Your task to perform on an android device: Check the news Image 0: 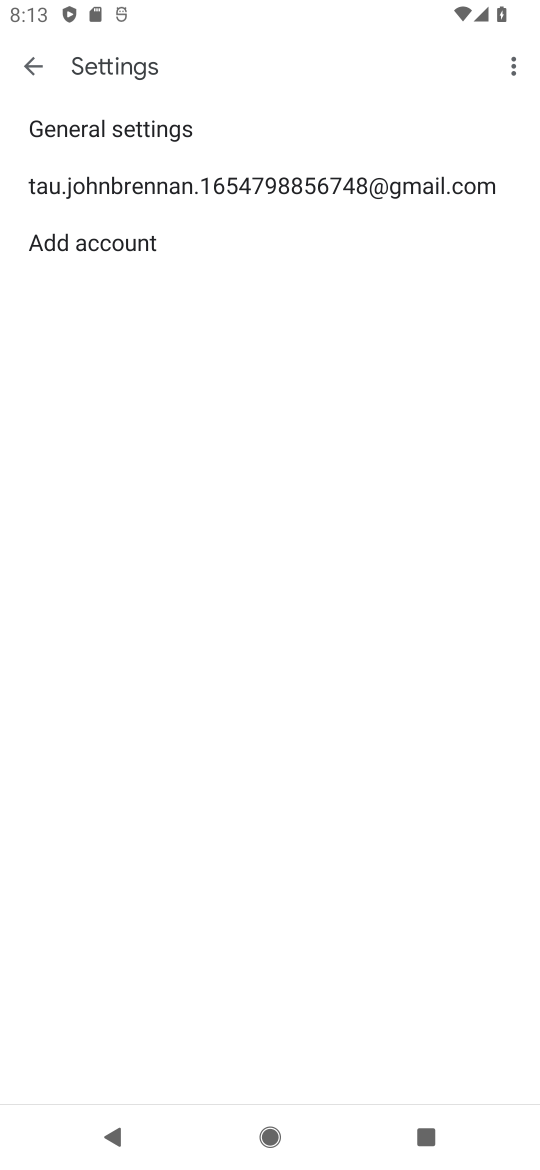
Step 0: press home button
Your task to perform on an android device: Check the news Image 1: 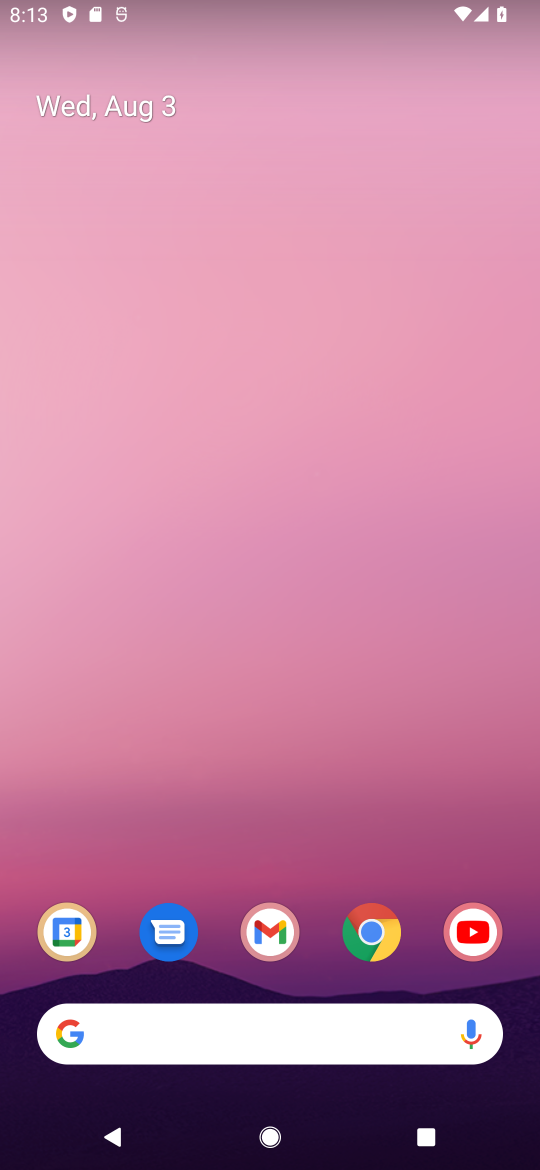
Step 1: drag from (299, 1002) to (227, 132)
Your task to perform on an android device: Check the news Image 2: 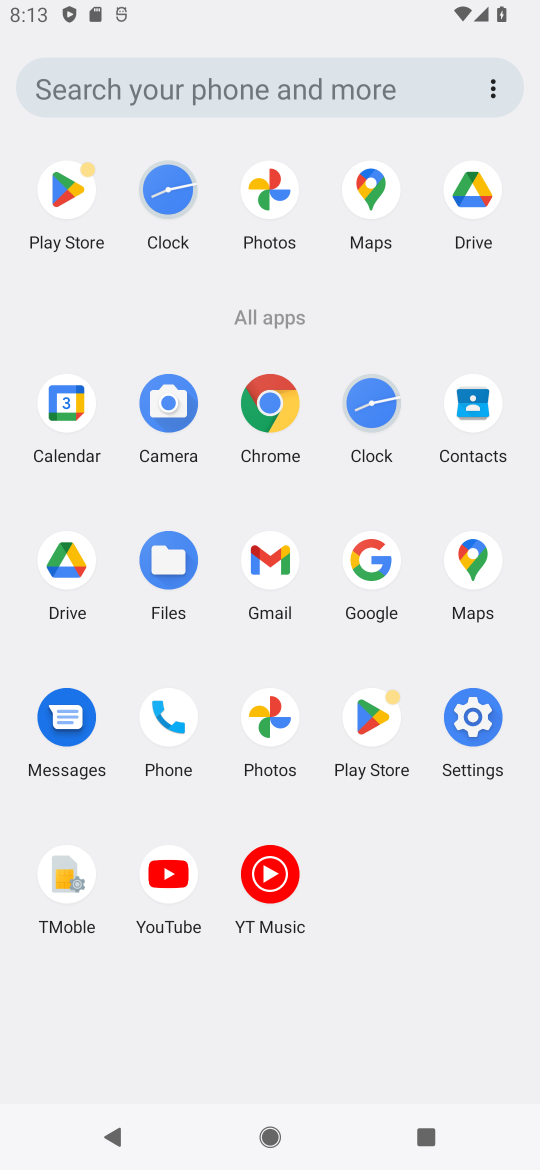
Step 2: click (358, 563)
Your task to perform on an android device: Check the news Image 3: 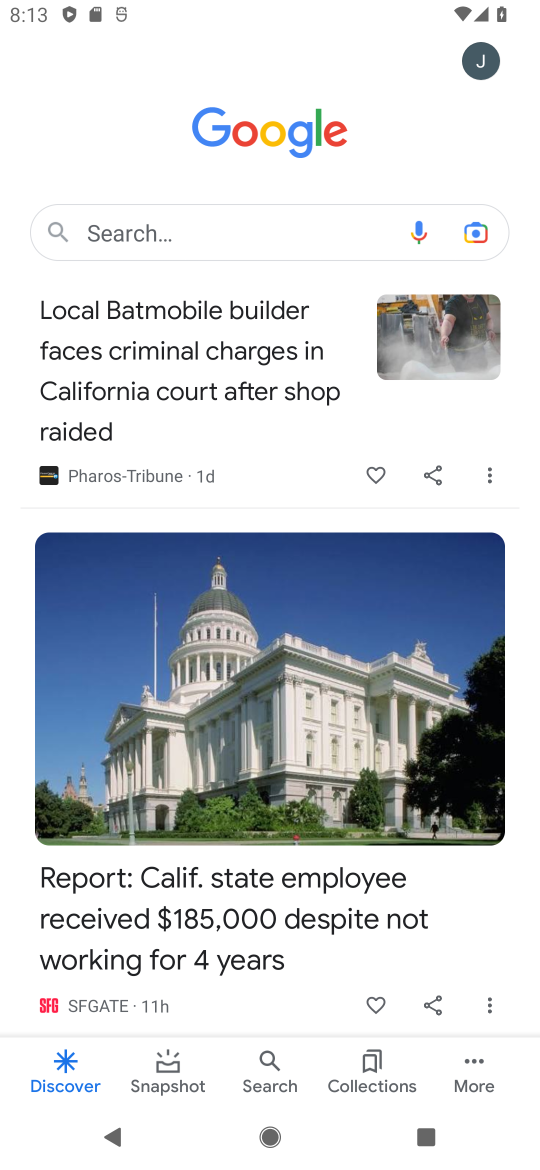
Step 3: click (196, 237)
Your task to perform on an android device: Check the news Image 4: 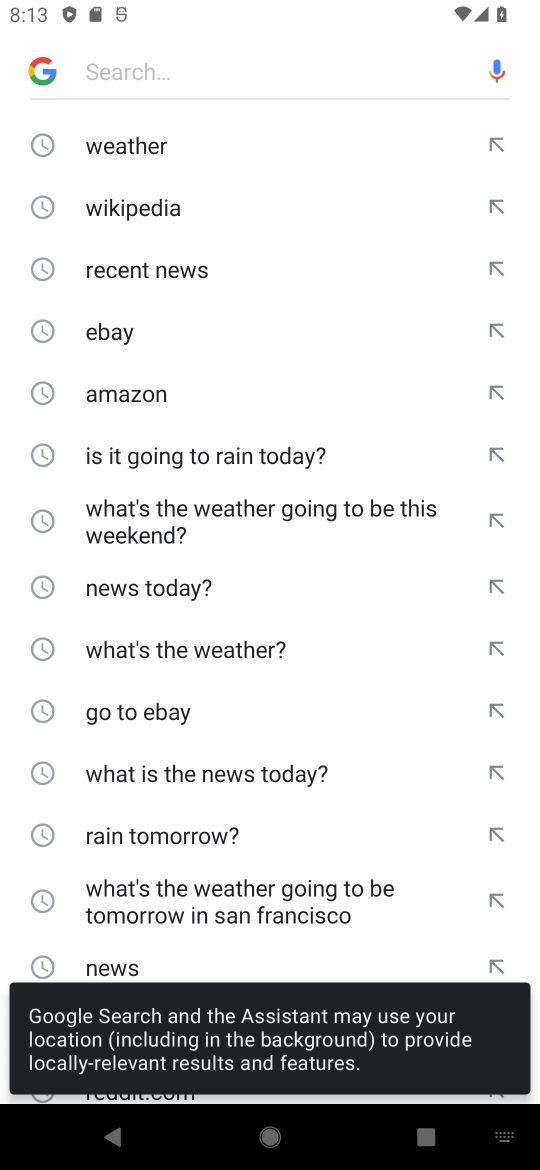
Step 4: click (153, 591)
Your task to perform on an android device: Check the news Image 5: 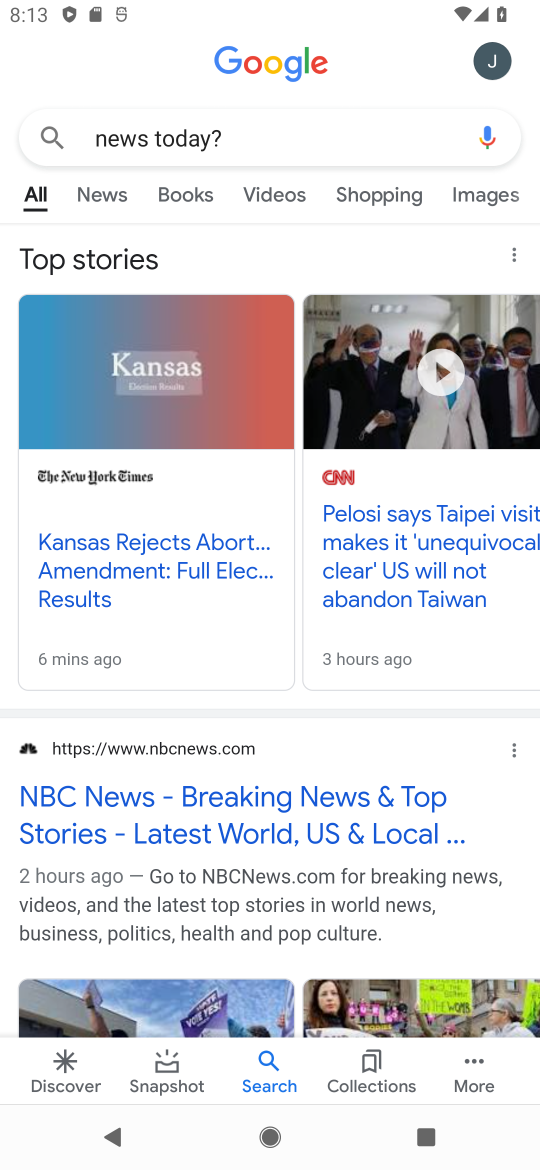
Step 5: task complete